Your task to perform on an android device: Open calendar and show me the second week of next month Image 0: 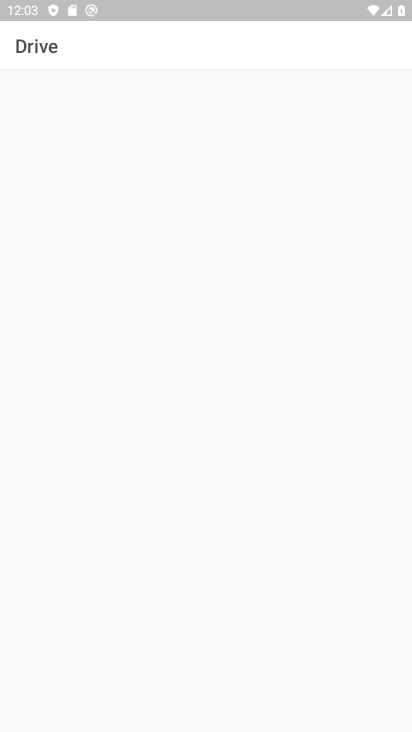
Step 0: press home button
Your task to perform on an android device: Open calendar and show me the second week of next month Image 1: 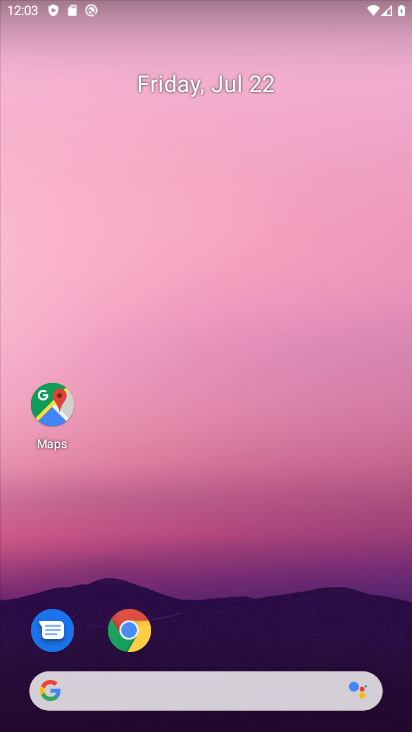
Step 1: drag from (280, 614) to (242, 95)
Your task to perform on an android device: Open calendar and show me the second week of next month Image 2: 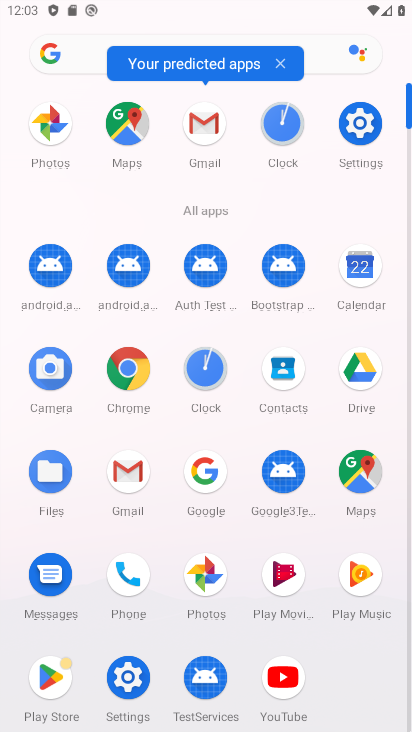
Step 2: click (367, 269)
Your task to perform on an android device: Open calendar and show me the second week of next month Image 3: 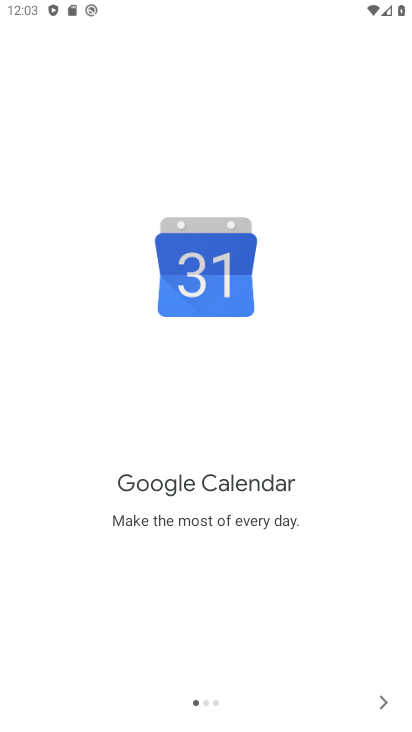
Step 3: click (381, 716)
Your task to perform on an android device: Open calendar and show me the second week of next month Image 4: 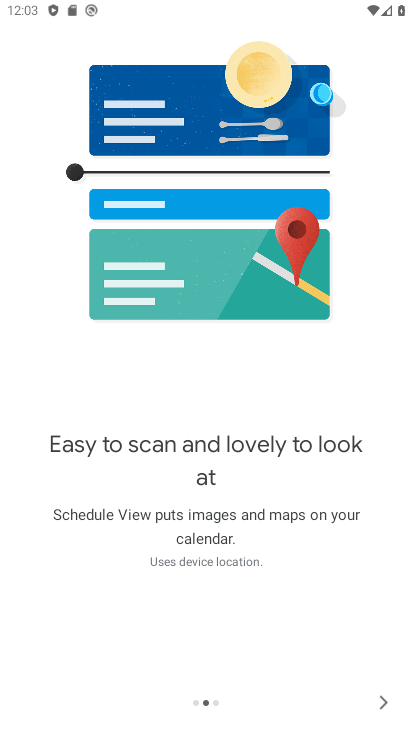
Step 4: click (381, 716)
Your task to perform on an android device: Open calendar and show me the second week of next month Image 5: 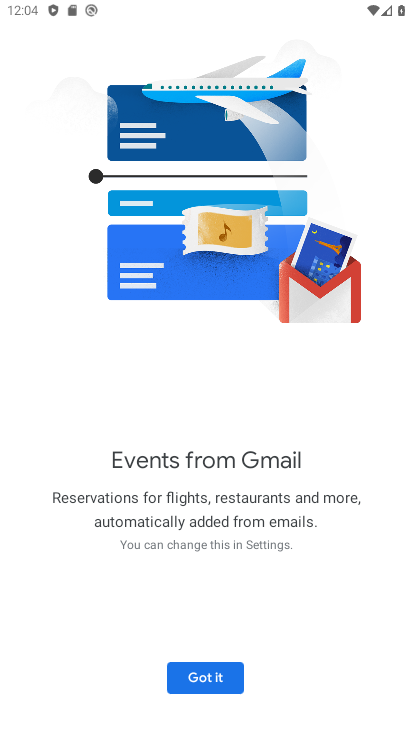
Step 5: click (205, 688)
Your task to perform on an android device: Open calendar and show me the second week of next month Image 6: 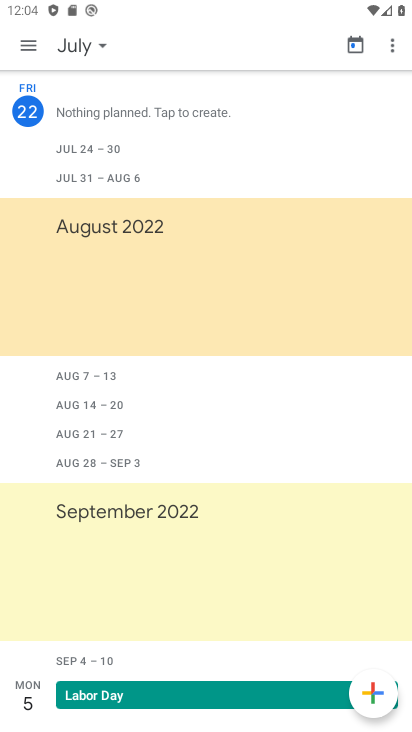
Step 6: click (23, 52)
Your task to perform on an android device: Open calendar and show me the second week of next month Image 7: 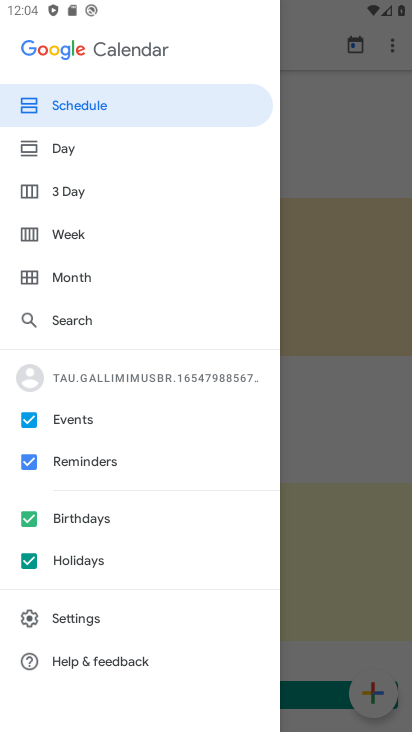
Step 7: click (61, 246)
Your task to perform on an android device: Open calendar and show me the second week of next month Image 8: 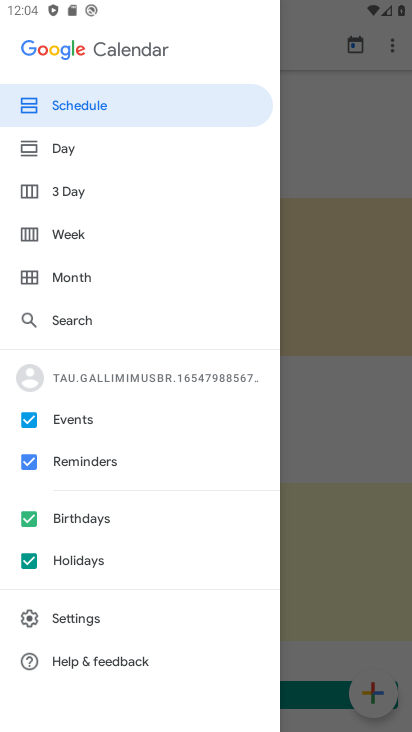
Step 8: click (63, 239)
Your task to perform on an android device: Open calendar and show me the second week of next month Image 9: 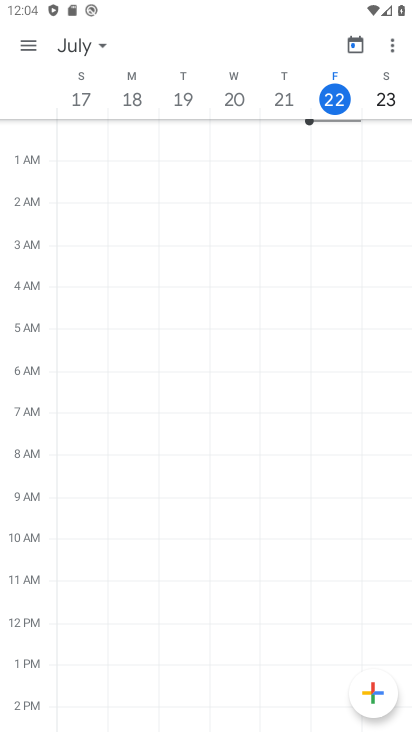
Step 9: click (86, 49)
Your task to perform on an android device: Open calendar and show me the second week of next month Image 10: 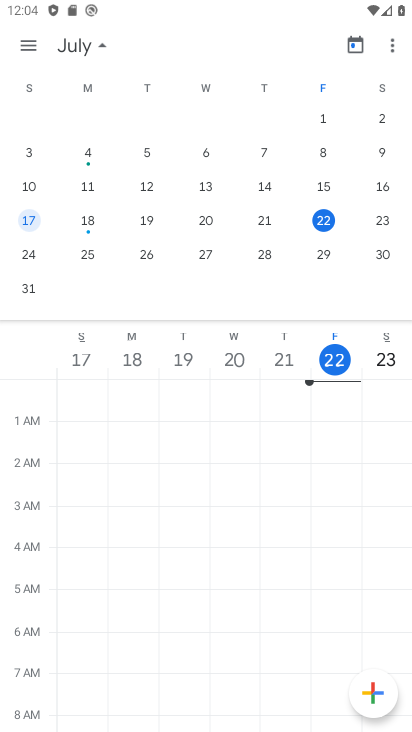
Step 10: drag from (370, 229) to (91, 224)
Your task to perform on an android device: Open calendar and show me the second week of next month Image 11: 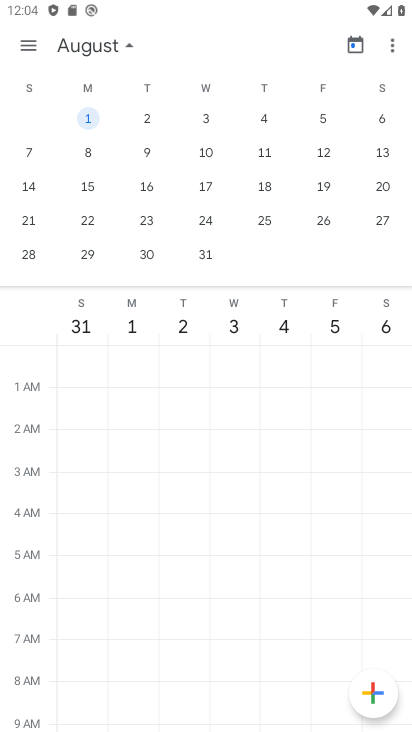
Step 11: click (202, 152)
Your task to perform on an android device: Open calendar and show me the second week of next month Image 12: 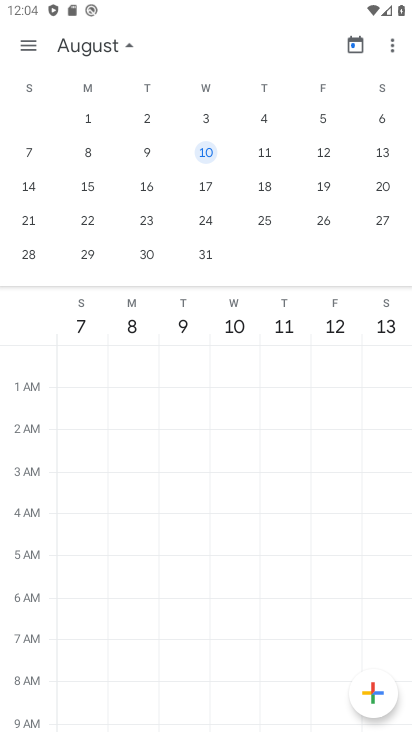
Step 12: task complete